Your task to perform on an android device: visit the assistant section in the google photos Image 0: 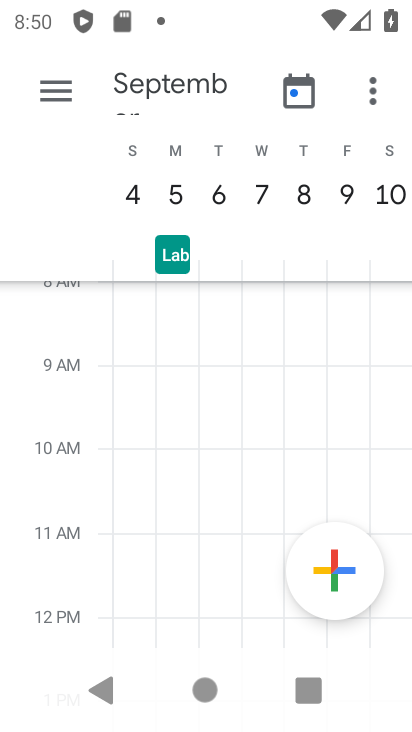
Step 0: press home button
Your task to perform on an android device: visit the assistant section in the google photos Image 1: 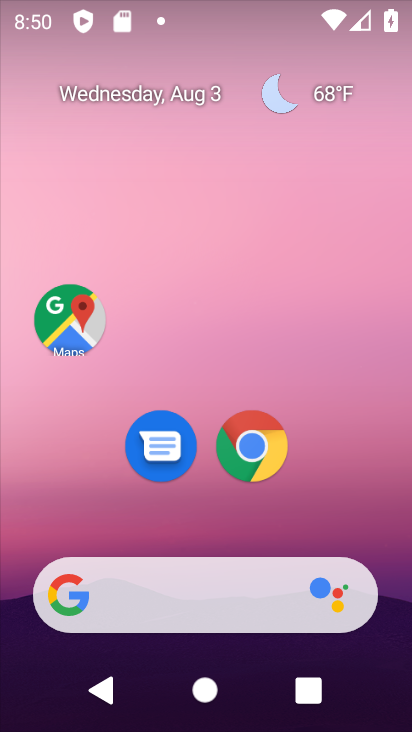
Step 1: drag from (392, 689) to (334, 61)
Your task to perform on an android device: visit the assistant section in the google photos Image 2: 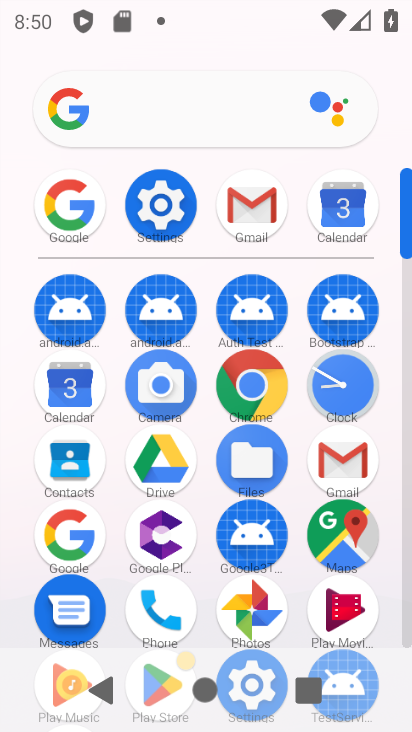
Step 2: click (245, 611)
Your task to perform on an android device: visit the assistant section in the google photos Image 3: 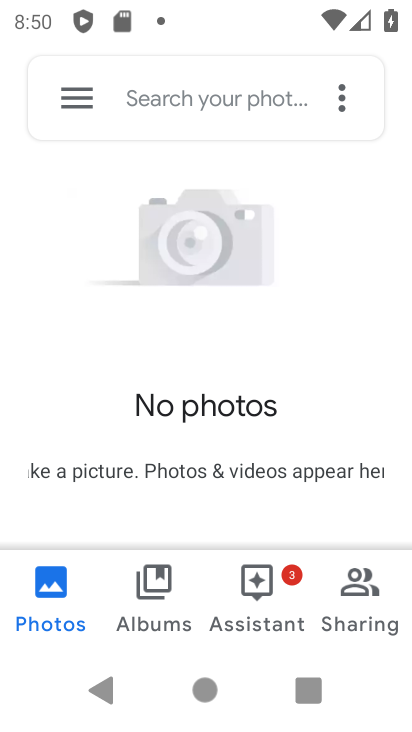
Step 3: click (243, 597)
Your task to perform on an android device: visit the assistant section in the google photos Image 4: 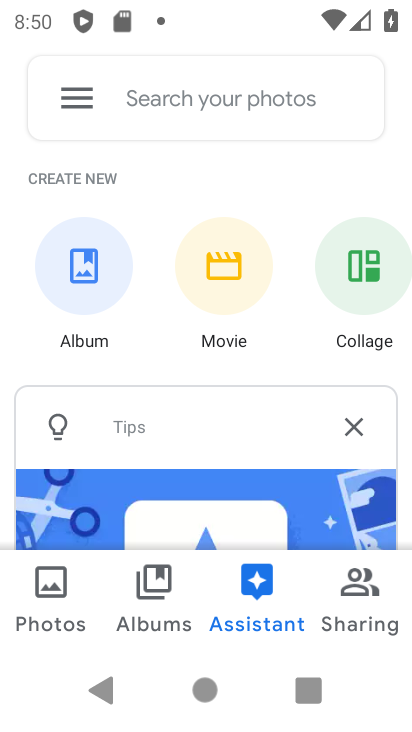
Step 4: click (358, 297)
Your task to perform on an android device: visit the assistant section in the google photos Image 5: 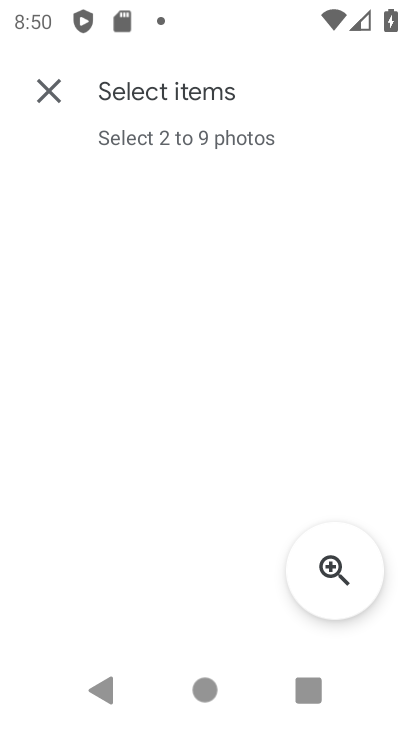
Step 5: task complete